Your task to perform on an android device: Open the Play Movies app and select the watchlist tab. Image 0: 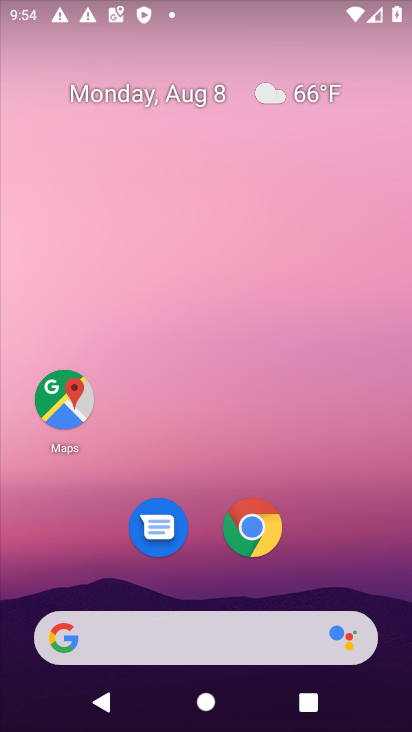
Step 0: drag from (385, 670) to (298, 157)
Your task to perform on an android device: Open the Play Movies app and select the watchlist tab. Image 1: 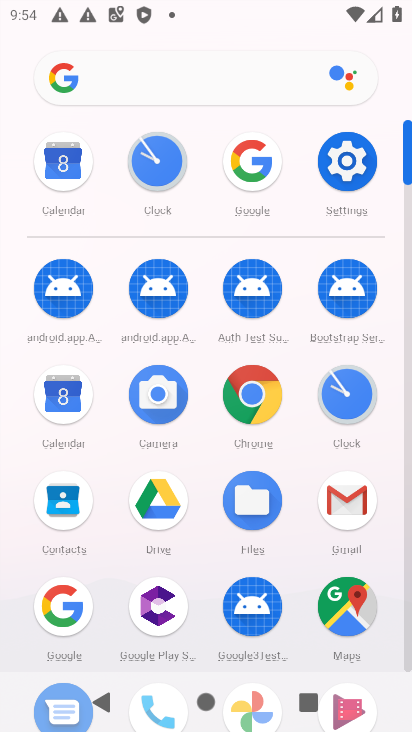
Step 1: click (337, 692)
Your task to perform on an android device: Open the Play Movies app and select the watchlist tab. Image 2: 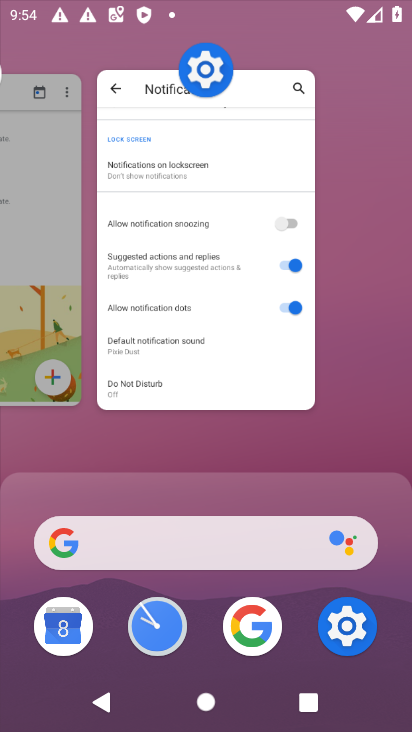
Step 2: press back button
Your task to perform on an android device: Open the Play Movies app and select the watchlist tab. Image 3: 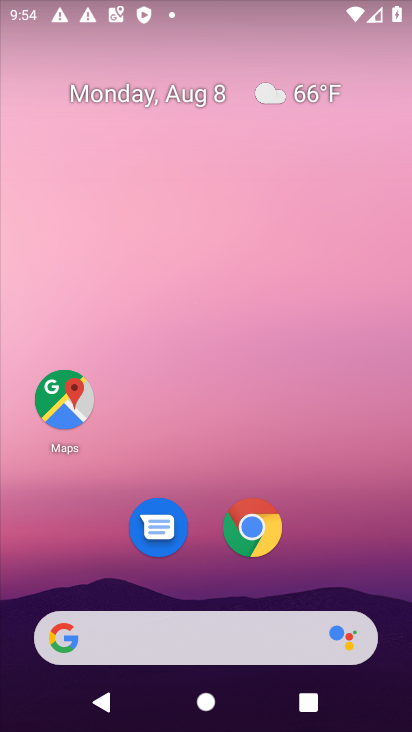
Step 3: drag from (391, 601) to (389, 123)
Your task to perform on an android device: Open the Play Movies app and select the watchlist tab. Image 4: 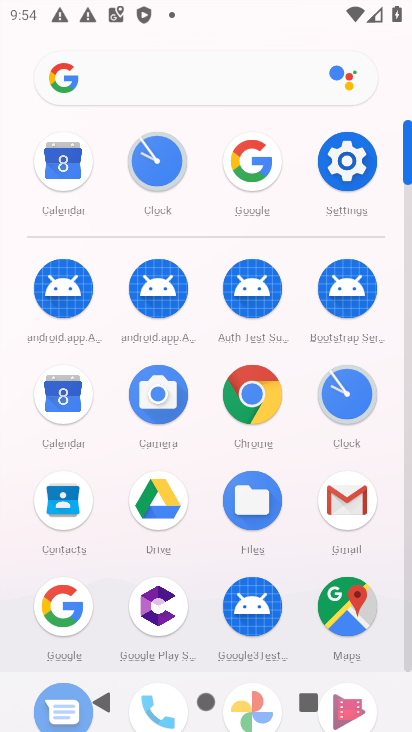
Step 4: drag from (302, 546) to (297, 224)
Your task to perform on an android device: Open the Play Movies app and select the watchlist tab. Image 5: 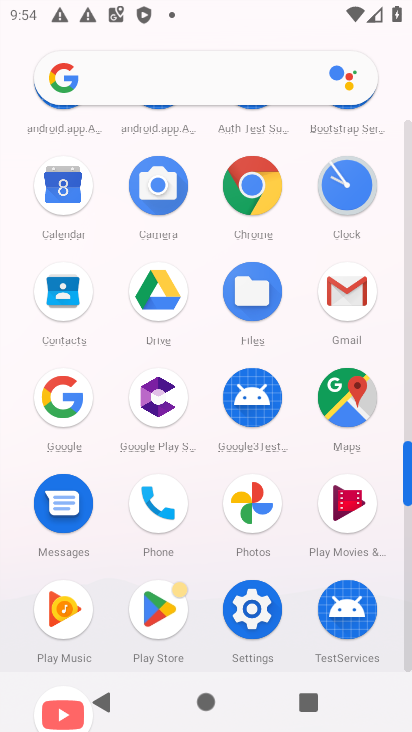
Step 5: click (349, 513)
Your task to perform on an android device: Open the Play Movies app and select the watchlist tab. Image 6: 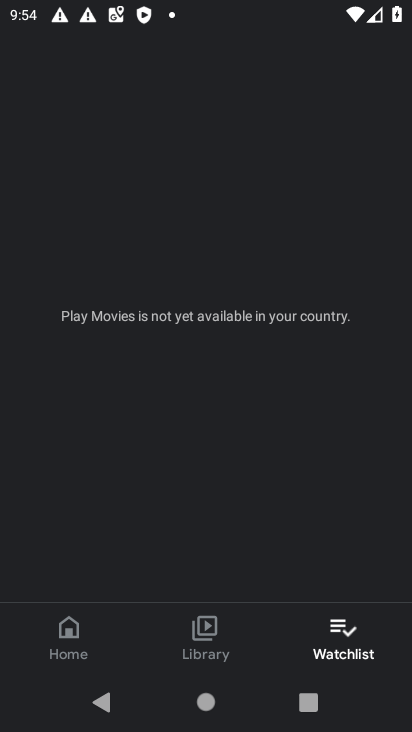
Step 6: click (345, 636)
Your task to perform on an android device: Open the Play Movies app and select the watchlist tab. Image 7: 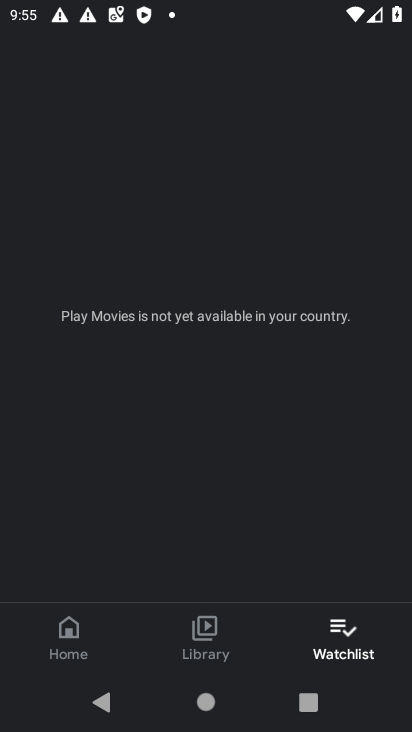
Step 7: task complete